Your task to perform on an android device: change timer sound Image 0: 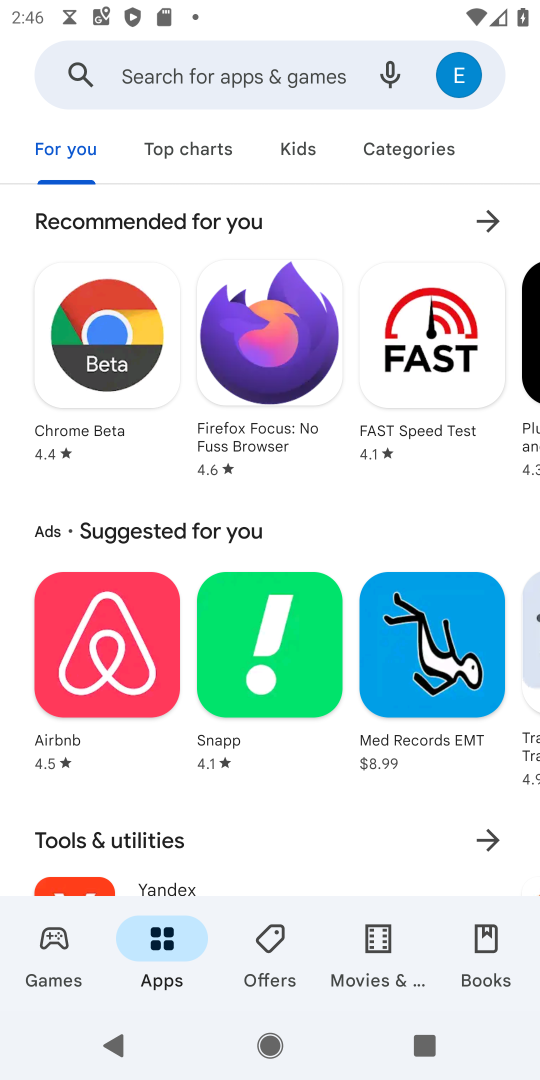
Step 0: press home button
Your task to perform on an android device: change timer sound Image 1: 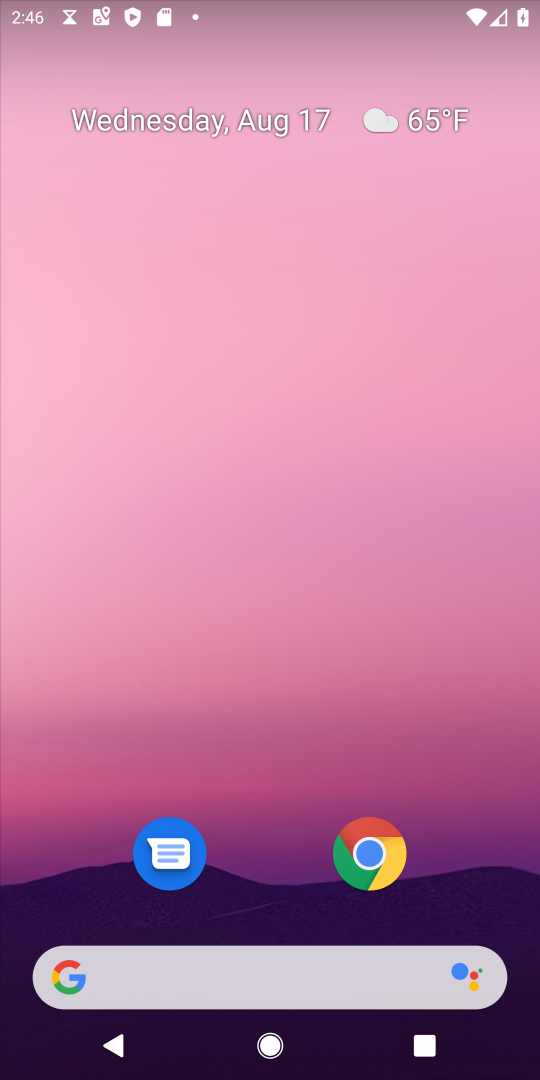
Step 1: drag from (231, 856) to (165, 149)
Your task to perform on an android device: change timer sound Image 2: 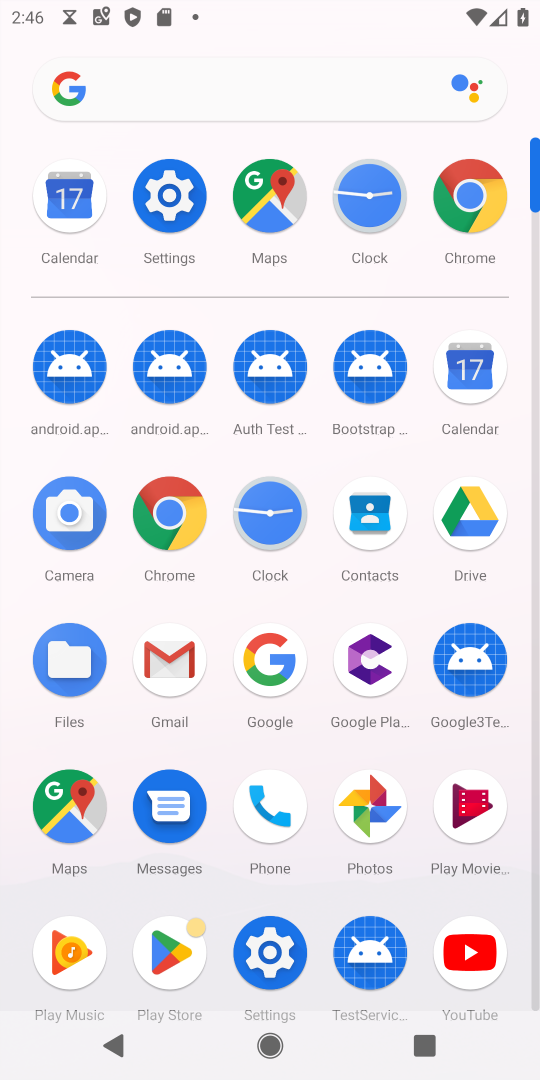
Step 2: click (274, 941)
Your task to perform on an android device: change timer sound Image 3: 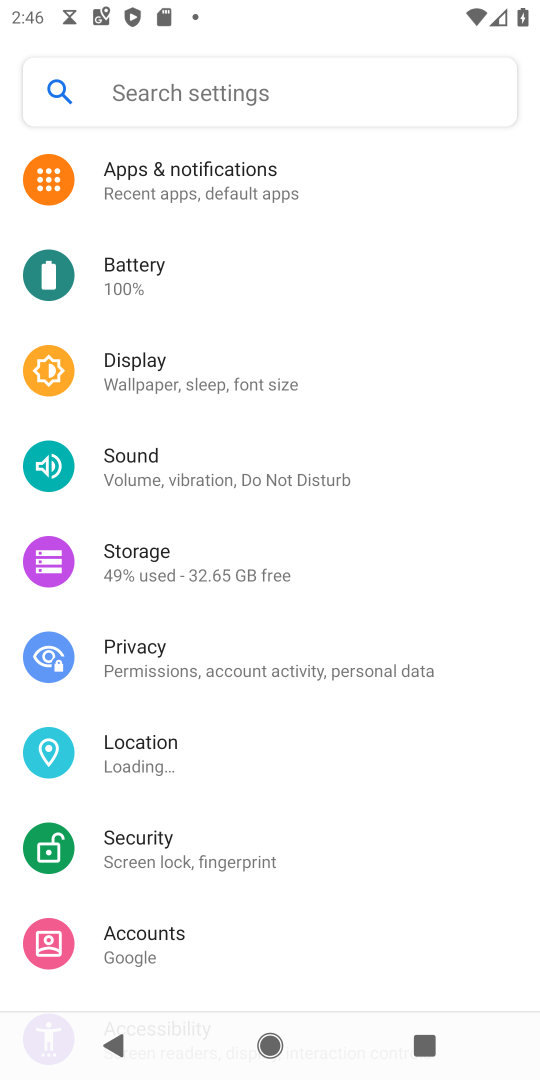
Step 3: click (137, 458)
Your task to perform on an android device: change timer sound Image 4: 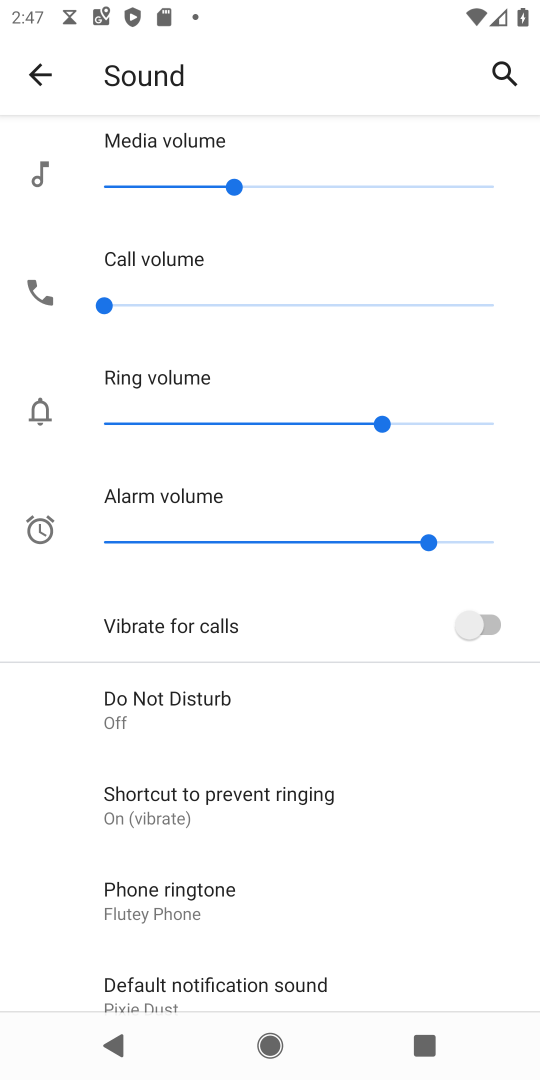
Step 4: task complete